Your task to perform on an android device: Go to Android settings Image 0: 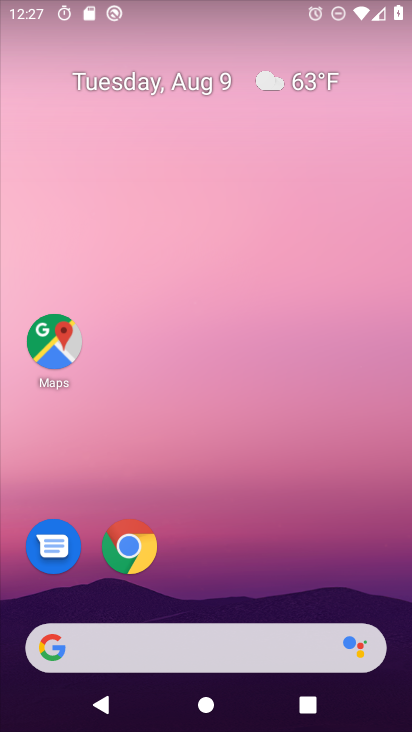
Step 0: press home button
Your task to perform on an android device: Go to Android settings Image 1: 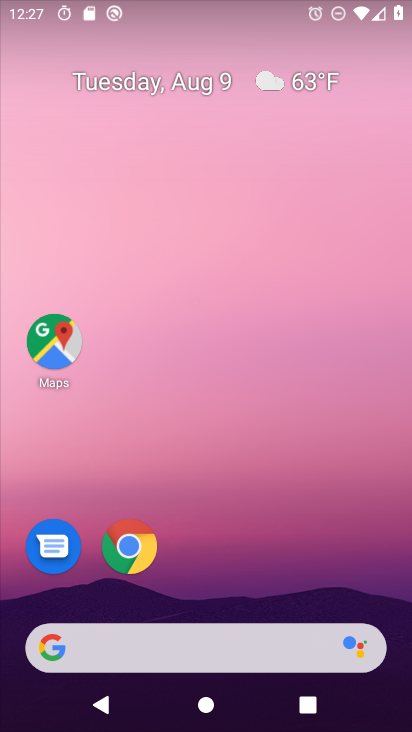
Step 1: drag from (203, 607) to (246, 76)
Your task to perform on an android device: Go to Android settings Image 2: 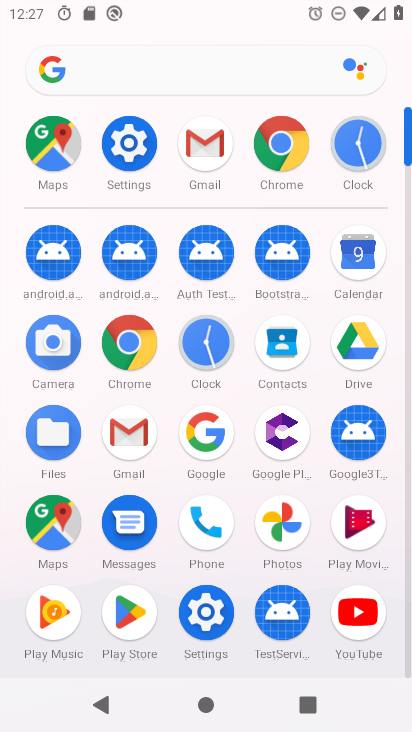
Step 2: click (123, 136)
Your task to perform on an android device: Go to Android settings Image 3: 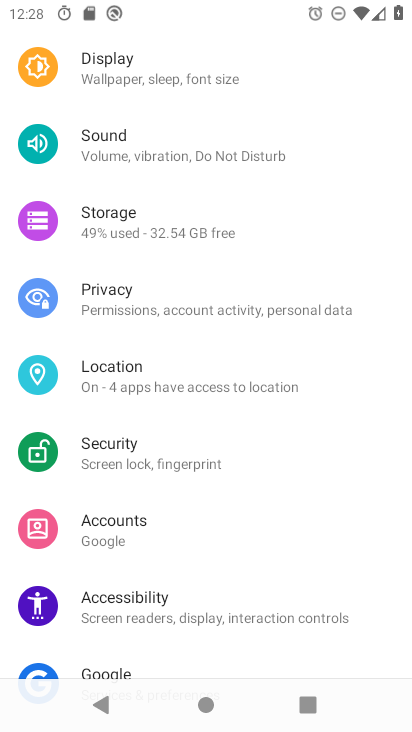
Step 3: drag from (173, 636) to (268, 62)
Your task to perform on an android device: Go to Android settings Image 4: 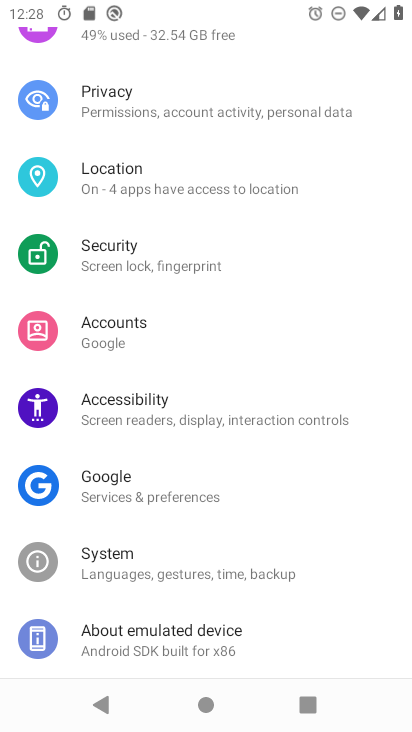
Step 4: click (248, 638)
Your task to perform on an android device: Go to Android settings Image 5: 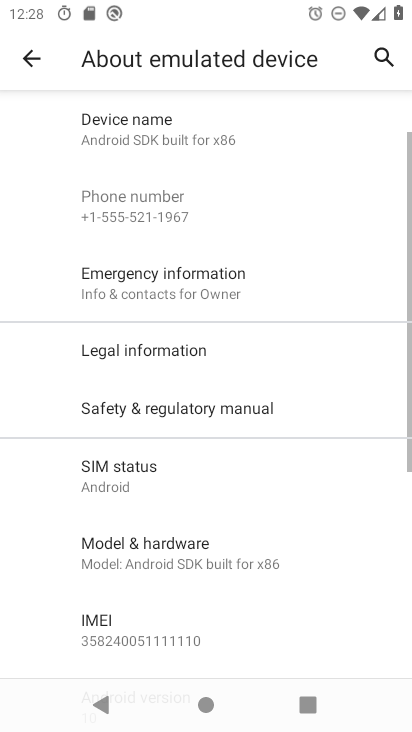
Step 5: drag from (149, 572) to (206, 146)
Your task to perform on an android device: Go to Android settings Image 6: 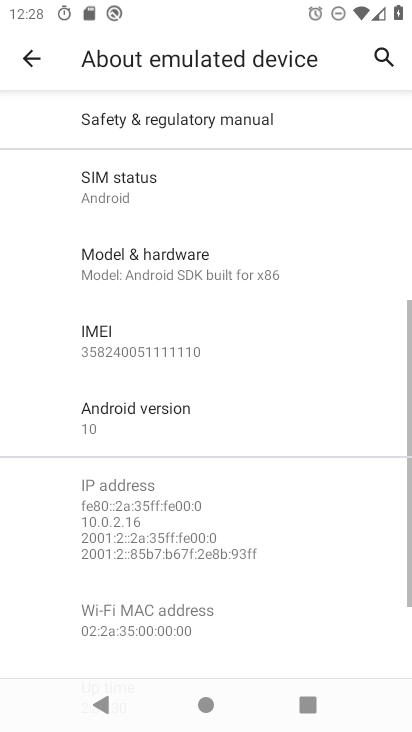
Step 6: click (155, 405)
Your task to perform on an android device: Go to Android settings Image 7: 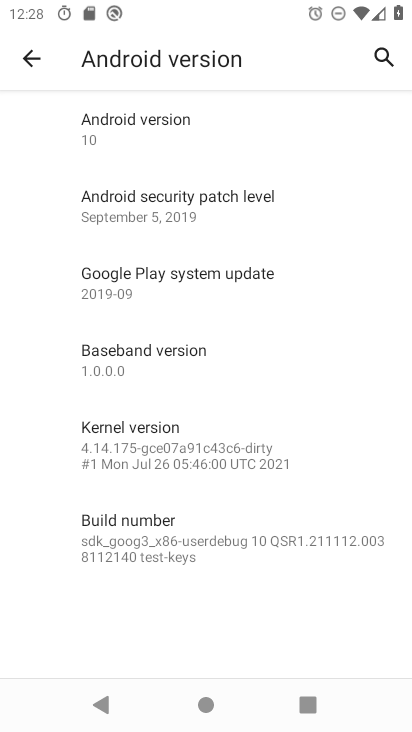
Step 7: task complete